Your task to perform on an android device: Open notification settings Image 0: 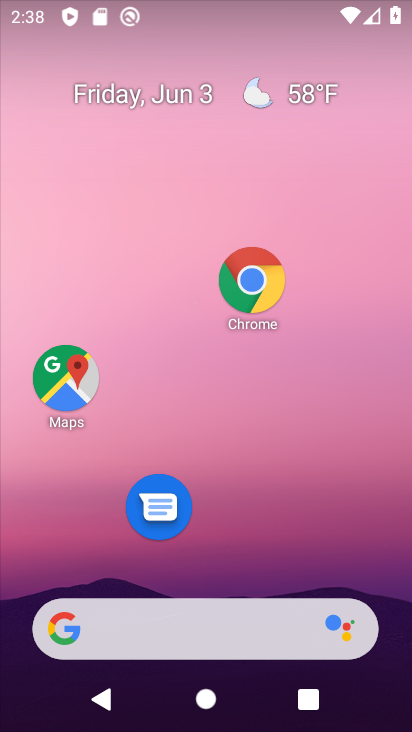
Step 0: drag from (268, 508) to (237, 94)
Your task to perform on an android device: Open notification settings Image 1: 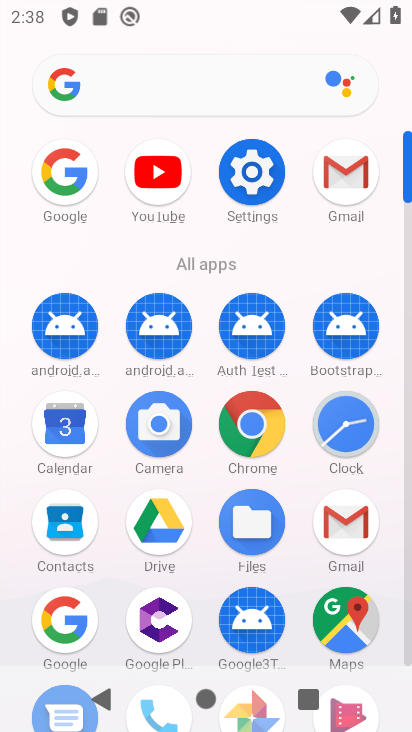
Step 1: click (259, 162)
Your task to perform on an android device: Open notification settings Image 2: 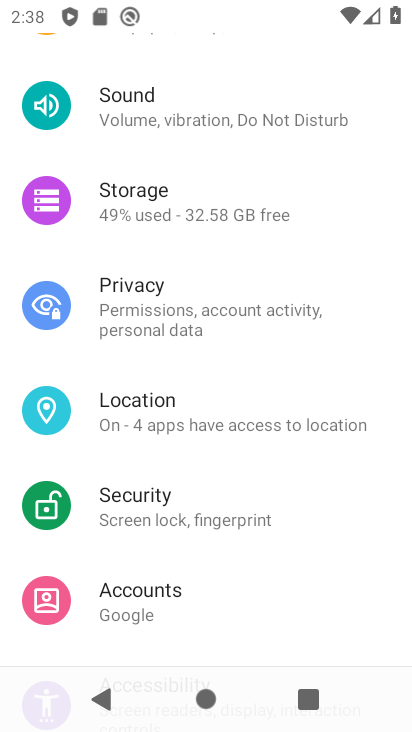
Step 2: drag from (179, 161) to (252, 563)
Your task to perform on an android device: Open notification settings Image 3: 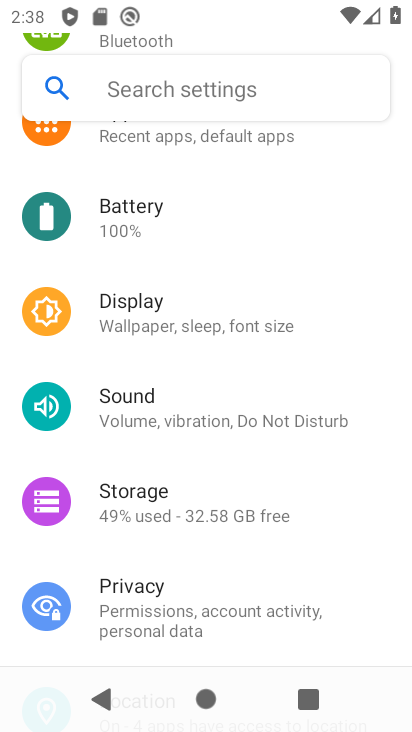
Step 3: drag from (175, 187) to (204, 354)
Your task to perform on an android device: Open notification settings Image 4: 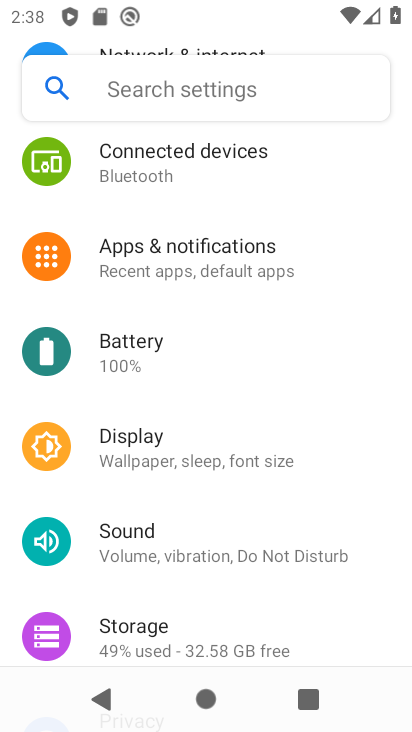
Step 4: click (209, 272)
Your task to perform on an android device: Open notification settings Image 5: 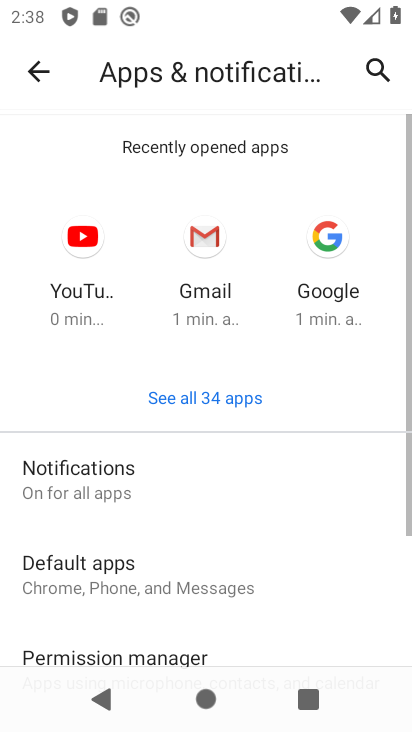
Step 5: click (124, 483)
Your task to perform on an android device: Open notification settings Image 6: 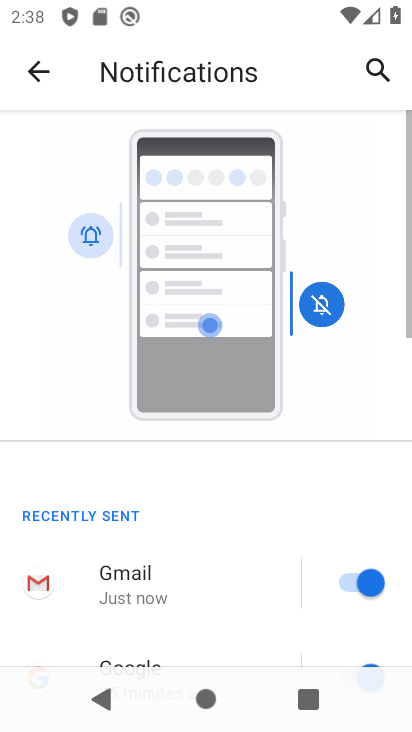
Step 6: task complete